Your task to perform on an android device: check data usage Image 0: 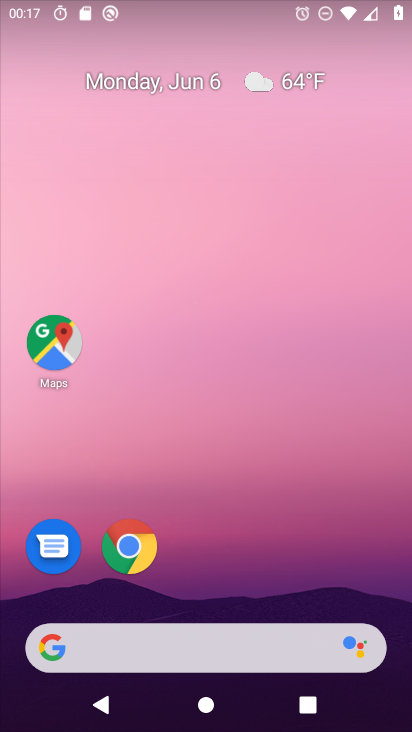
Step 0: drag from (200, 635) to (265, 135)
Your task to perform on an android device: check data usage Image 1: 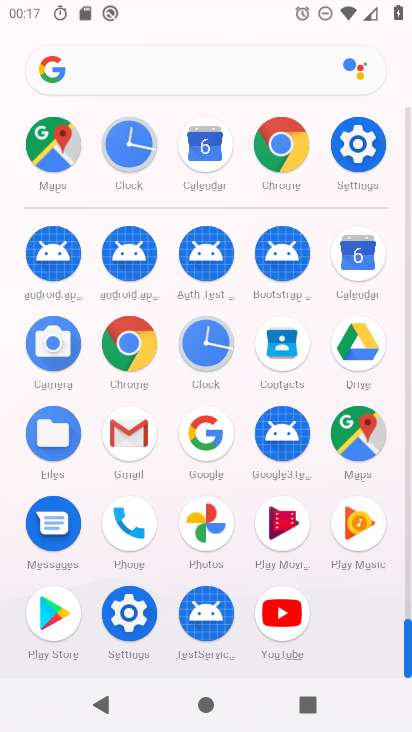
Step 1: click (362, 144)
Your task to perform on an android device: check data usage Image 2: 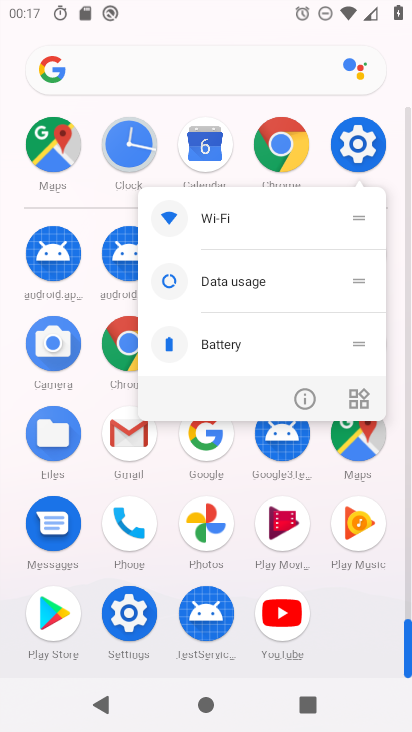
Step 2: click (261, 276)
Your task to perform on an android device: check data usage Image 3: 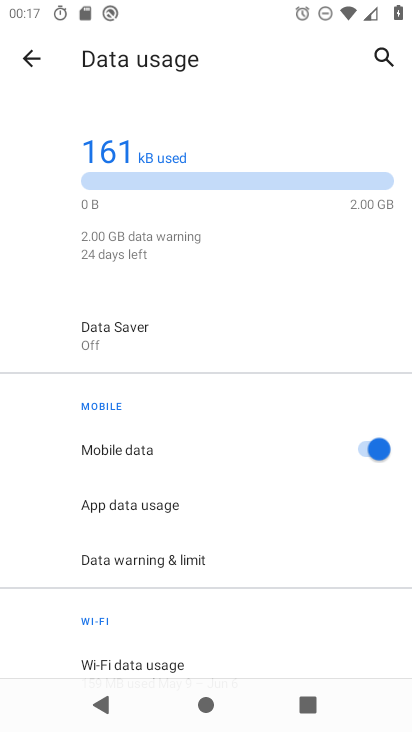
Step 3: task complete